Your task to perform on an android device: Go to wifi settings Image 0: 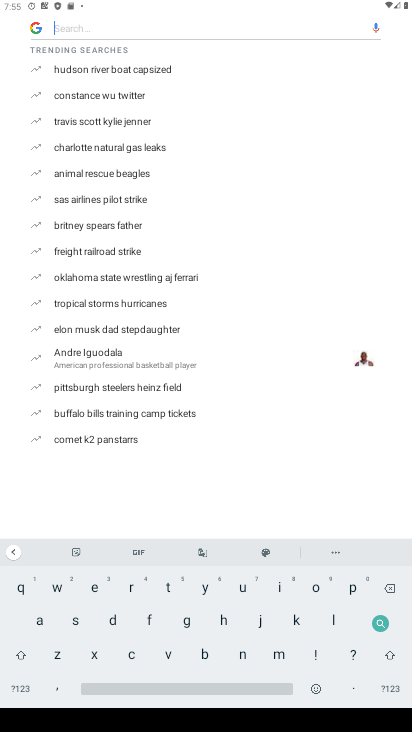
Step 0: press home button
Your task to perform on an android device: Go to wifi settings Image 1: 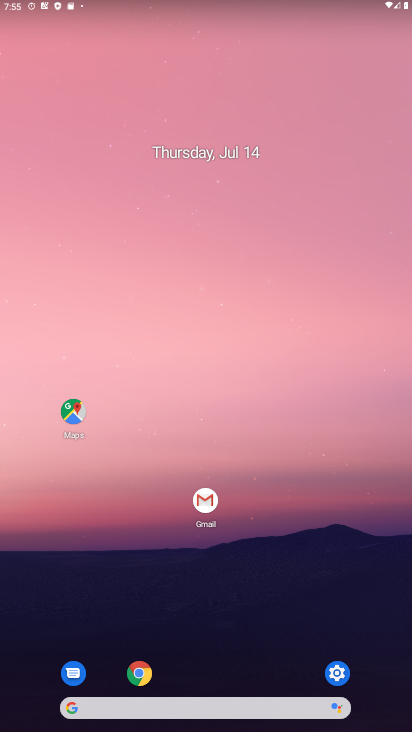
Step 1: click (345, 669)
Your task to perform on an android device: Go to wifi settings Image 2: 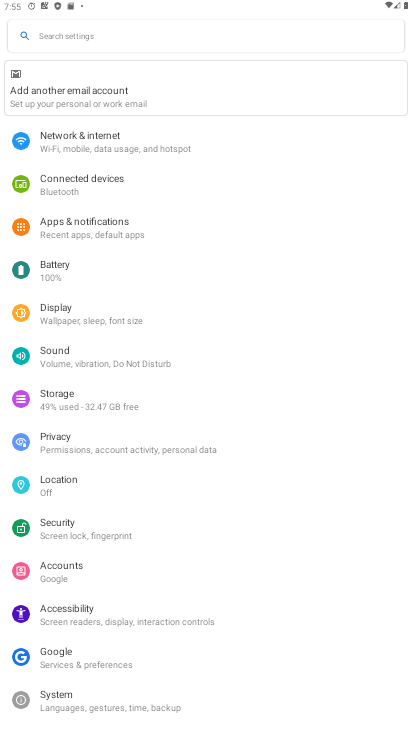
Step 2: click (126, 148)
Your task to perform on an android device: Go to wifi settings Image 3: 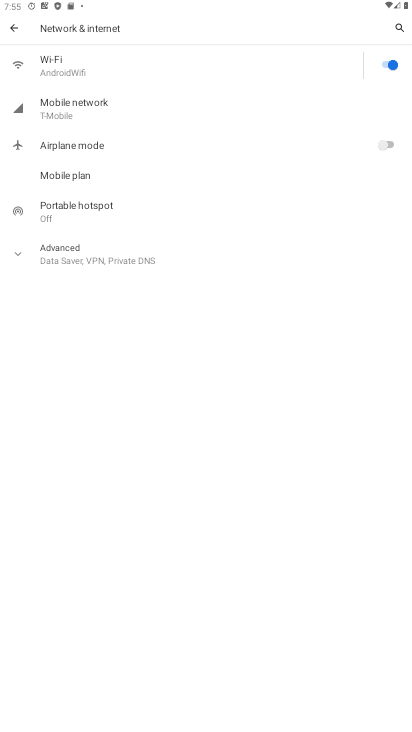
Step 3: click (85, 60)
Your task to perform on an android device: Go to wifi settings Image 4: 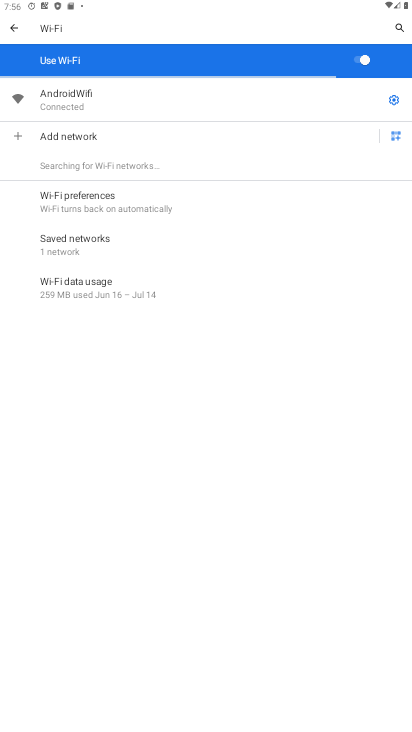
Step 4: task complete